Your task to perform on an android device: find snoozed emails in the gmail app Image 0: 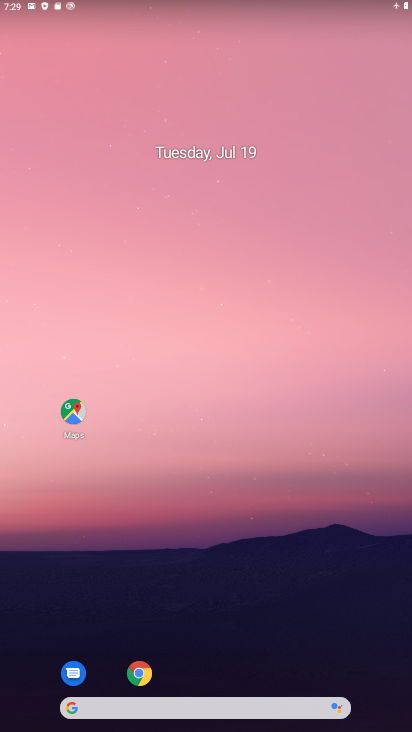
Step 0: drag from (306, 547) to (280, 0)
Your task to perform on an android device: find snoozed emails in the gmail app Image 1: 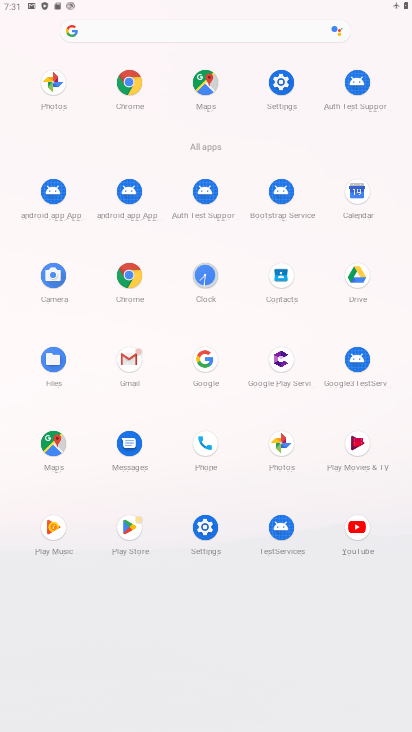
Step 1: click (141, 357)
Your task to perform on an android device: find snoozed emails in the gmail app Image 2: 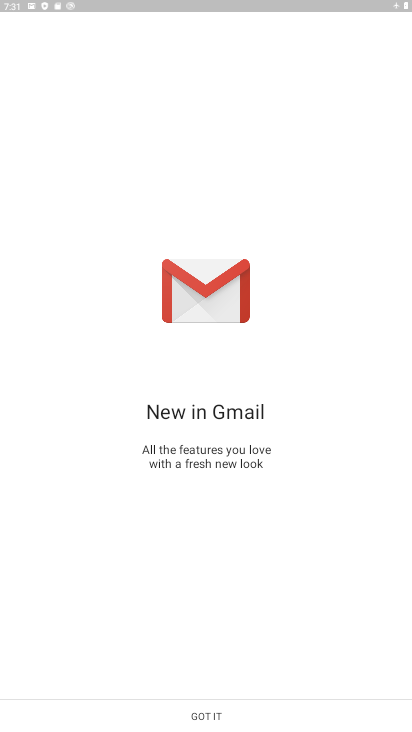
Step 2: click (212, 713)
Your task to perform on an android device: find snoozed emails in the gmail app Image 3: 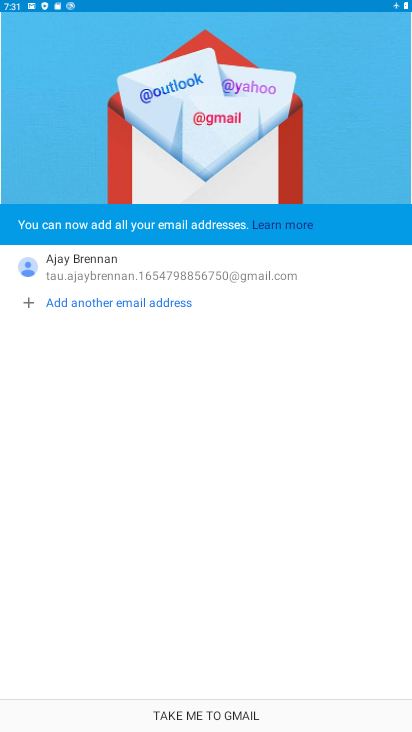
Step 3: click (212, 710)
Your task to perform on an android device: find snoozed emails in the gmail app Image 4: 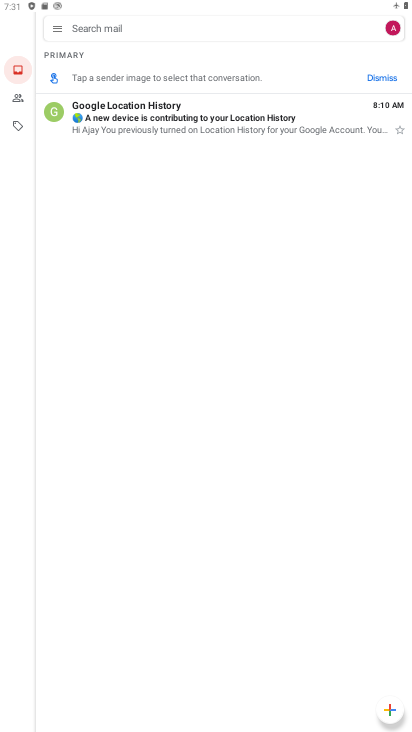
Step 4: click (62, 26)
Your task to perform on an android device: find snoozed emails in the gmail app Image 5: 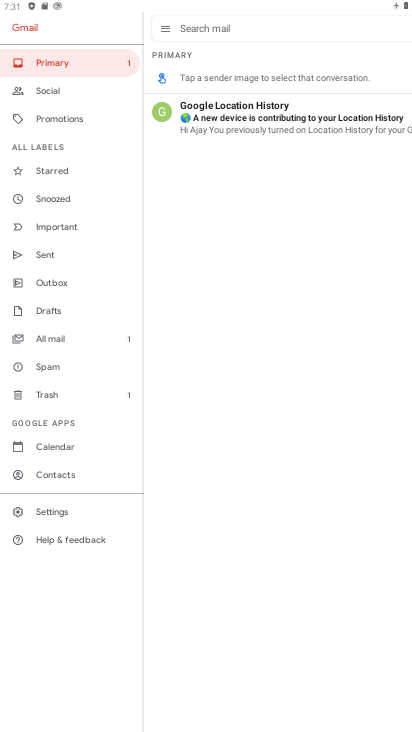
Step 5: click (91, 198)
Your task to perform on an android device: find snoozed emails in the gmail app Image 6: 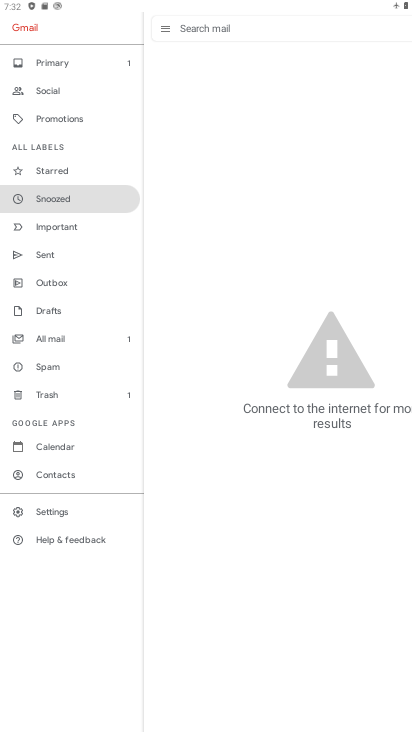
Step 6: task complete